Your task to perform on an android device: turn off wifi Image 0: 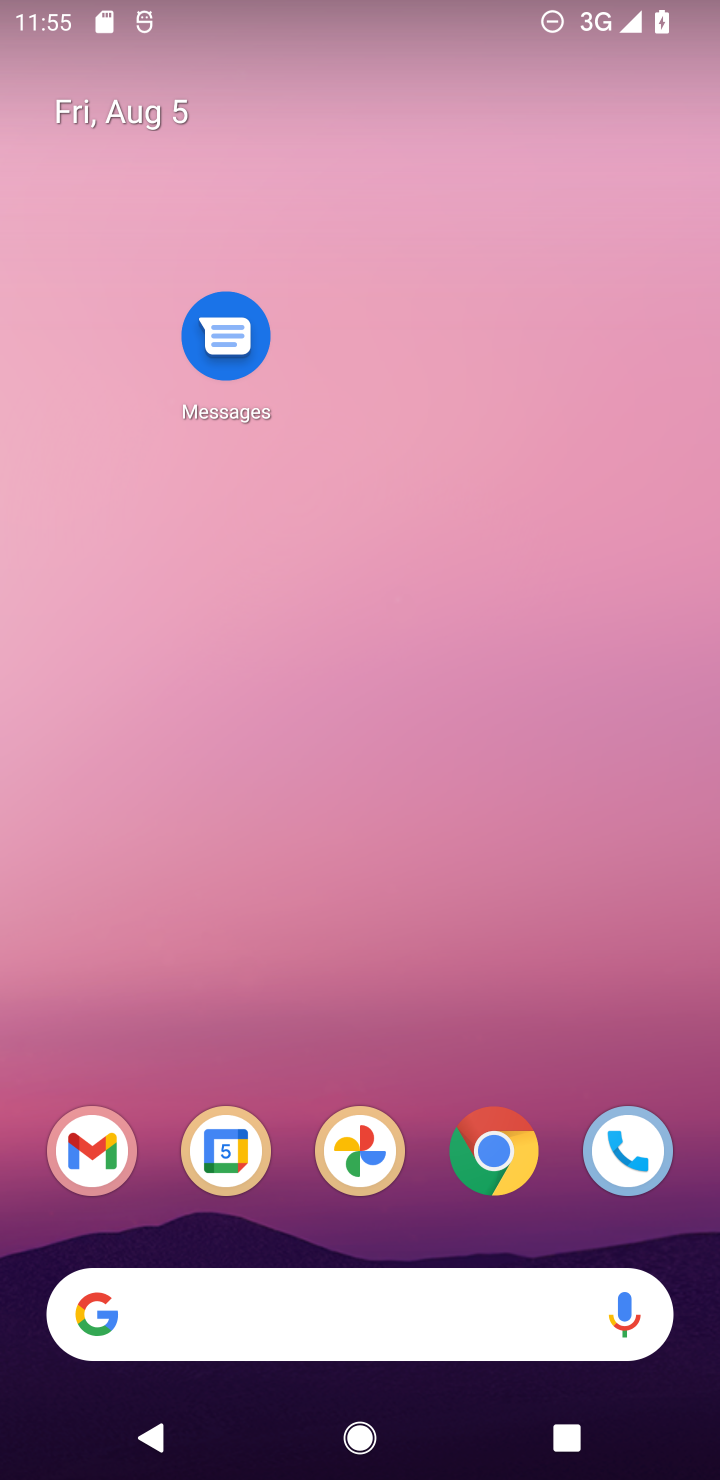
Step 0: drag from (308, 1192) to (310, 397)
Your task to perform on an android device: turn off wifi Image 1: 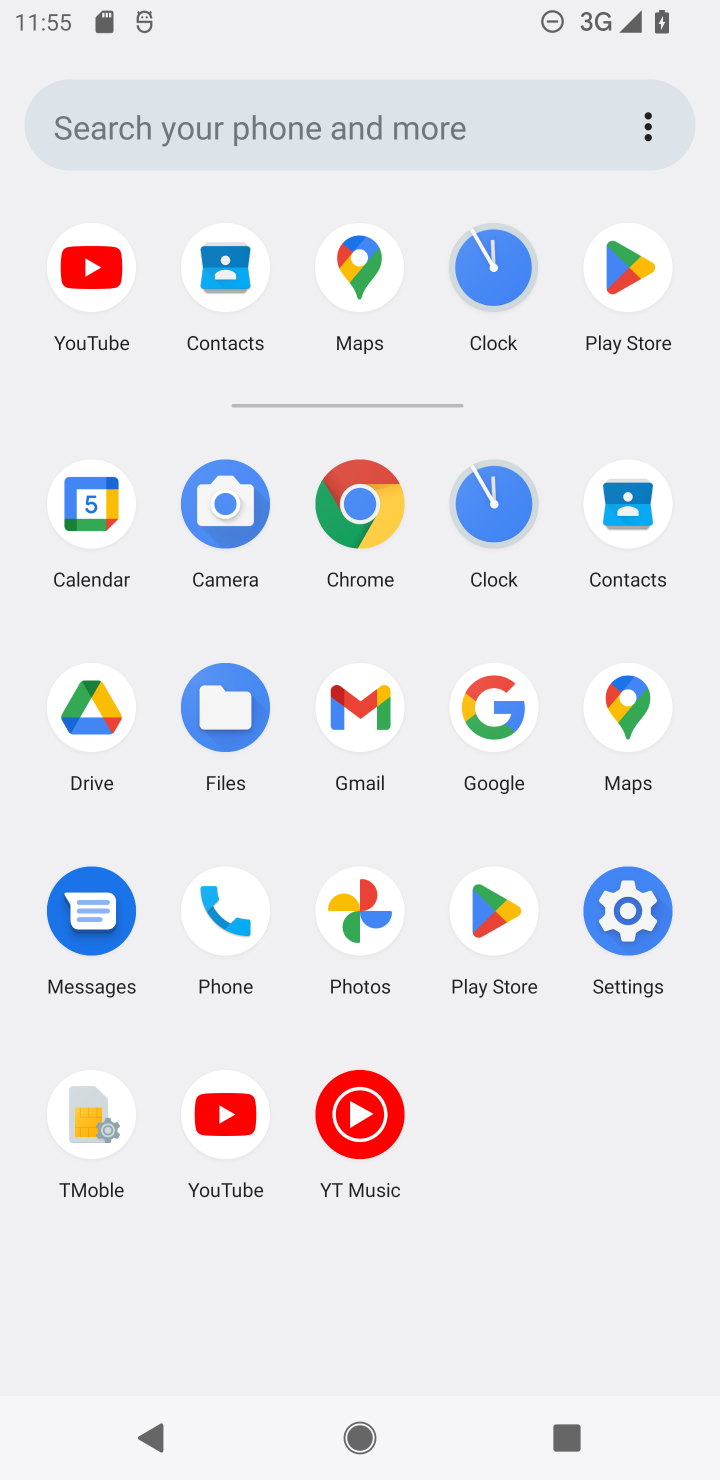
Step 1: click (640, 923)
Your task to perform on an android device: turn off wifi Image 2: 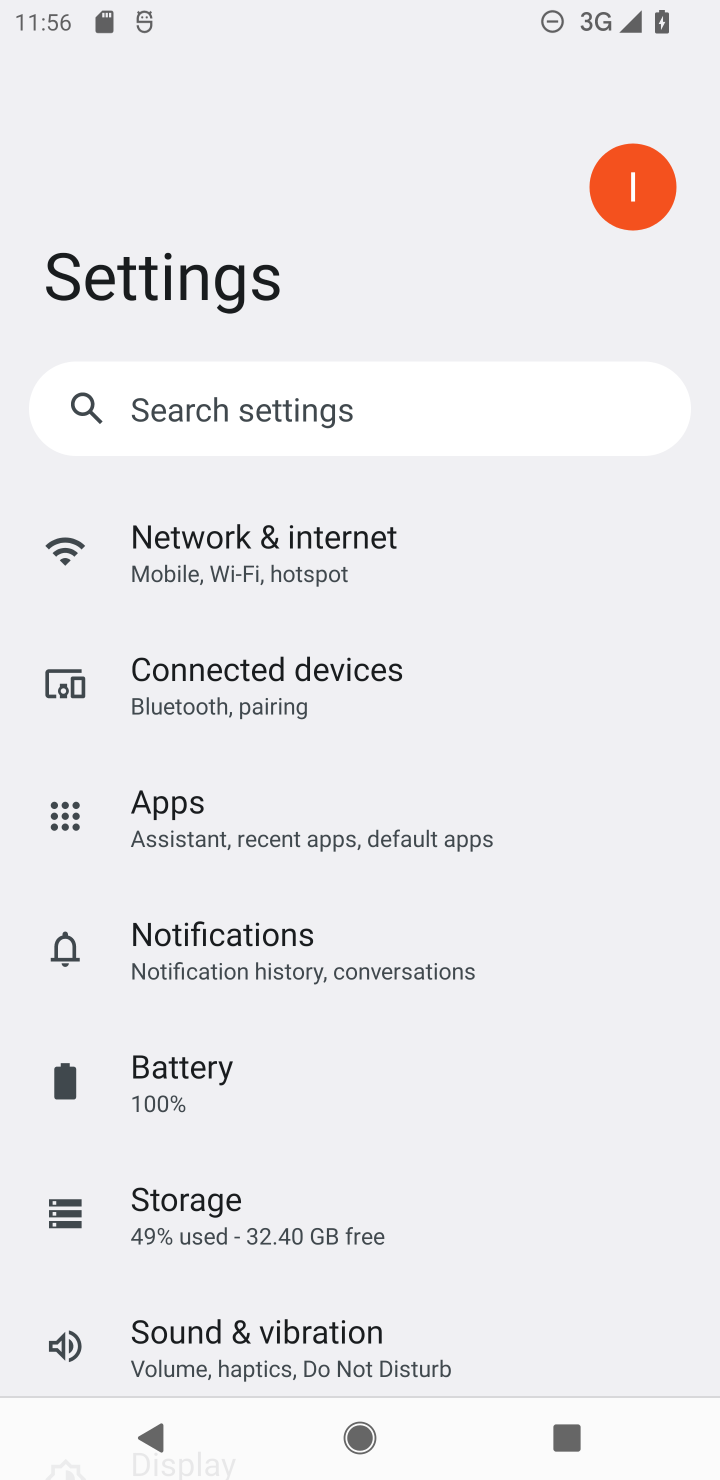
Step 2: click (237, 551)
Your task to perform on an android device: turn off wifi Image 3: 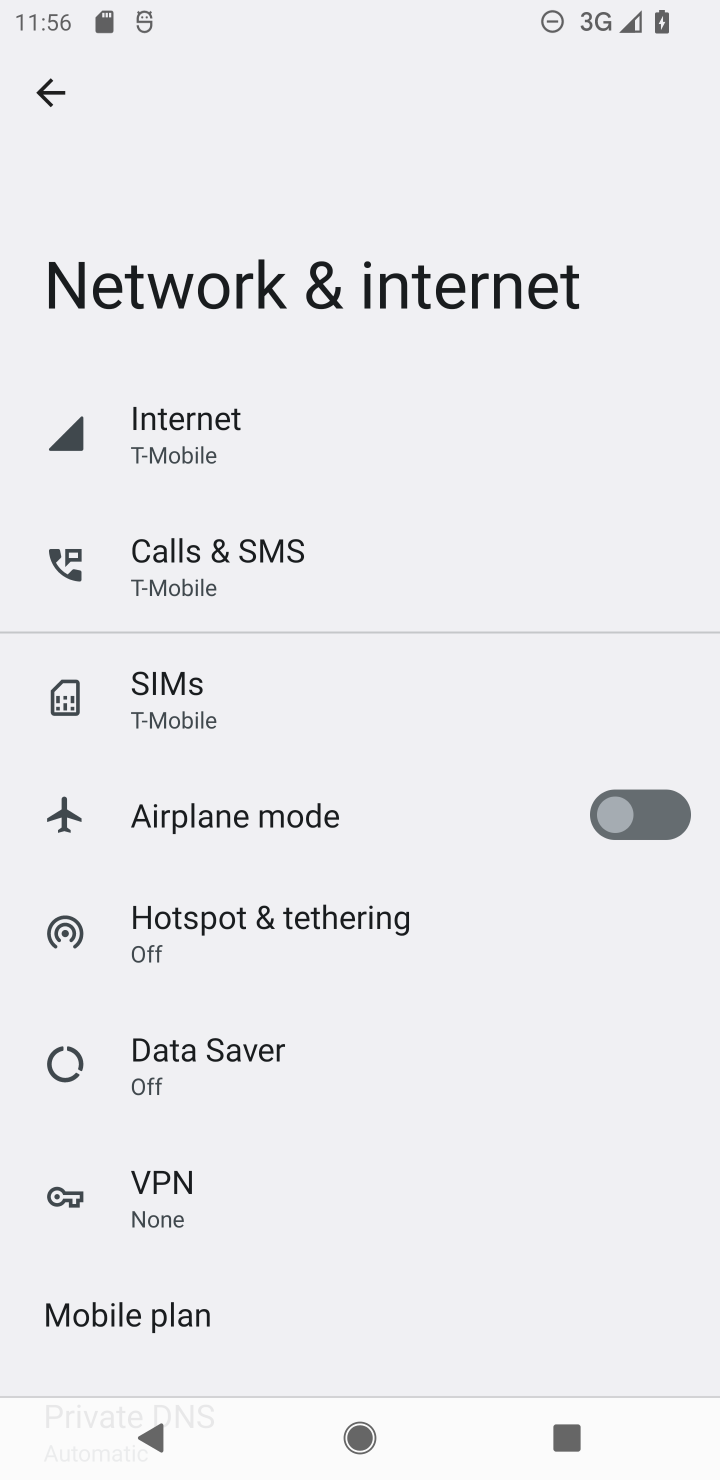
Step 3: click (175, 430)
Your task to perform on an android device: turn off wifi Image 4: 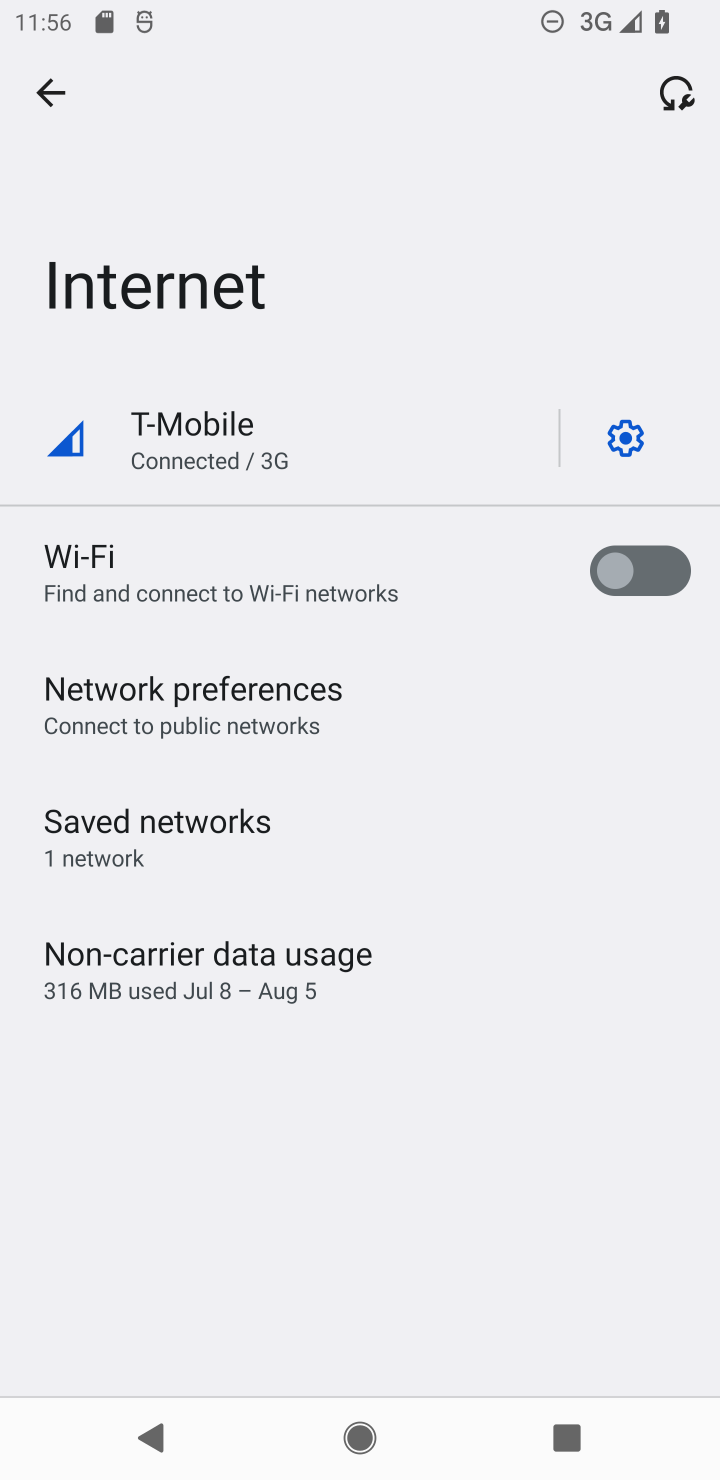
Step 4: task complete